Your task to perform on an android device: What's on my calendar today? Image 0: 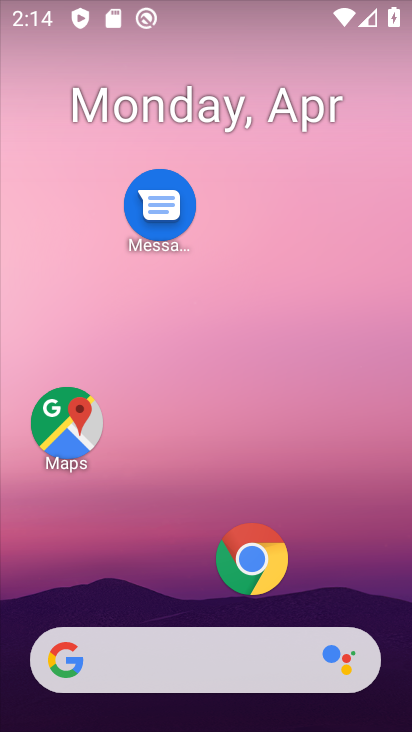
Step 0: drag from (156, 551) to (242, 6)
Your task to perform on an android device: What's on my calendar today? Image 1: 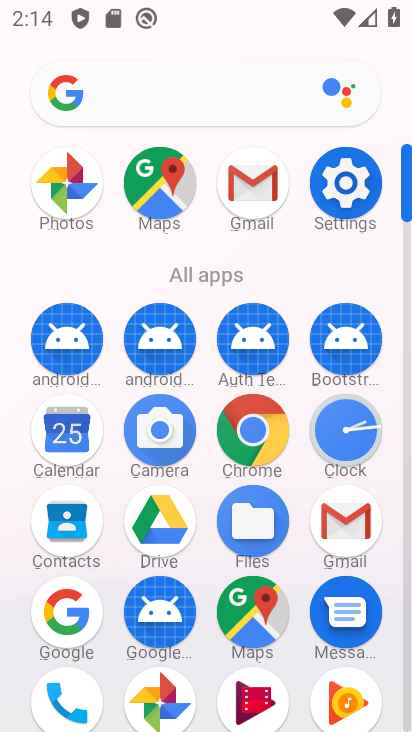
Step 1: click (64, 450)
Your task to perform on an android device: What's on my calendar today? Image 2: 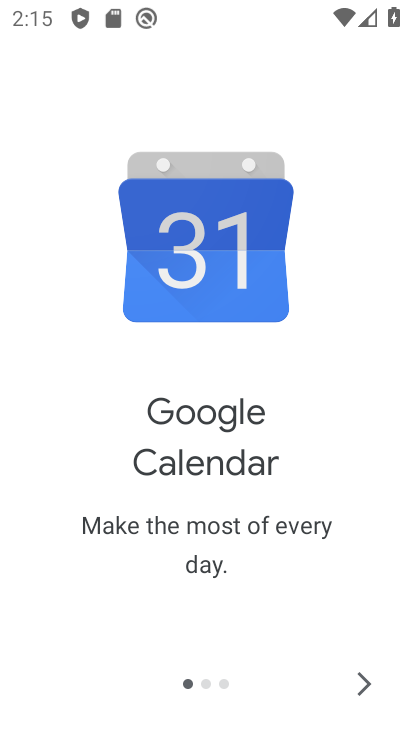
Step 2: click (365, 685)
Your task to perform on an android device: What's on my calendar today? Image 3: 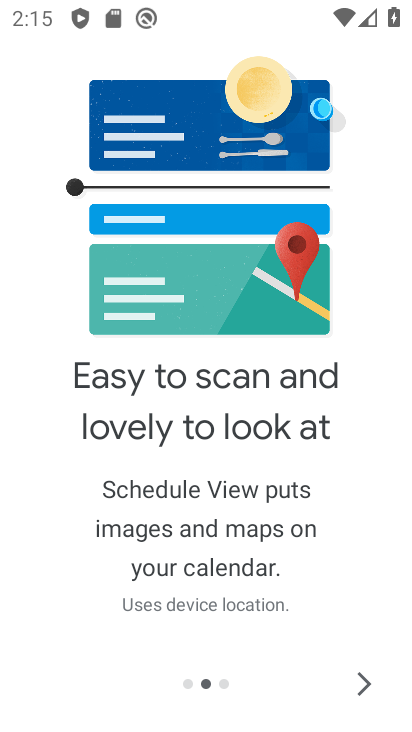
Step 3: click (365, 685)
Your task to perform on an android device: What's on my calendar today? Image 4: 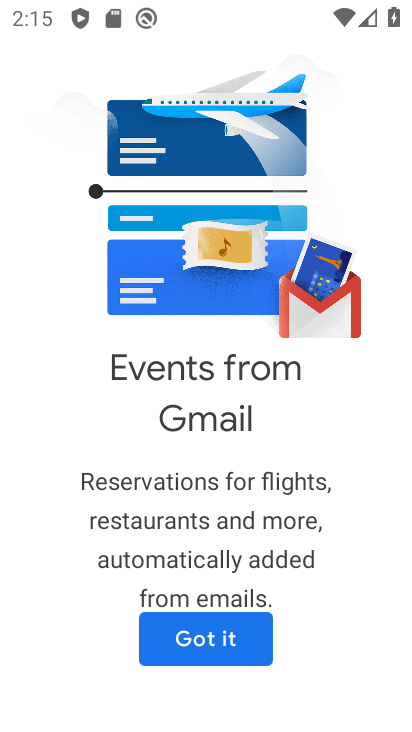
Step 4: click (244, 648)
Your task to perform on an android device: What's on my calendar today? Image 5: 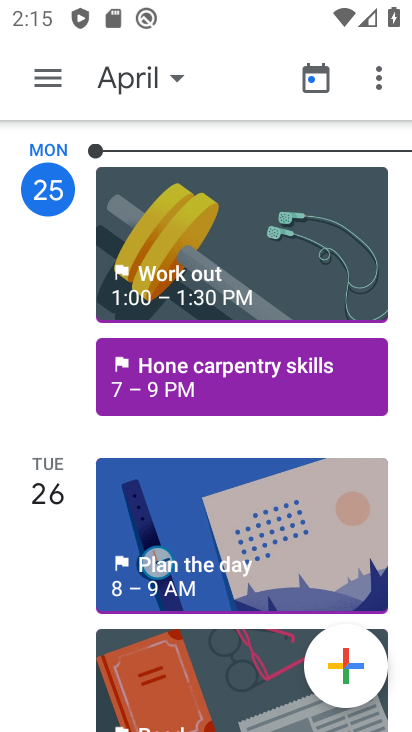
Step 5: click (33, 77)
Your task to perform on an android device: What's on my calendar today? Image 6: 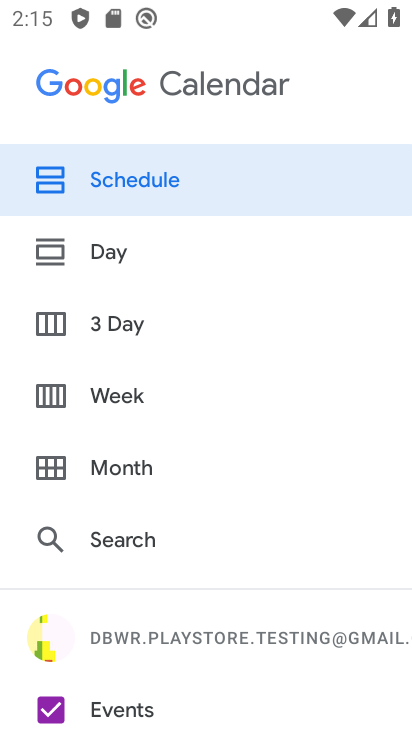
Step 6: click (121, 263)
Your task to perform on an android device: What's on my calendar today? Image 7: 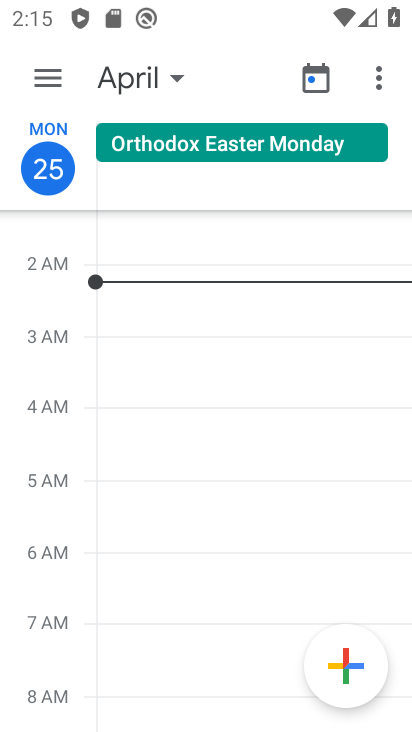
Step 7: task complete